Your task to perform on an android device: Open Reddit.com Image 0: 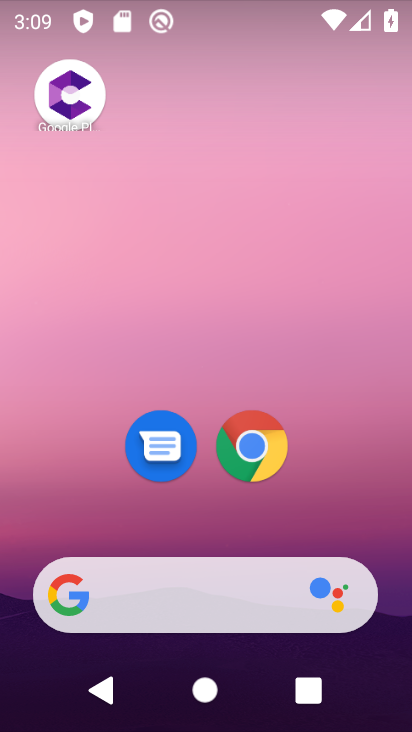
Step 0: click (257, 439)
Your task to perform on an android device: Open Reddit.com Image 1: 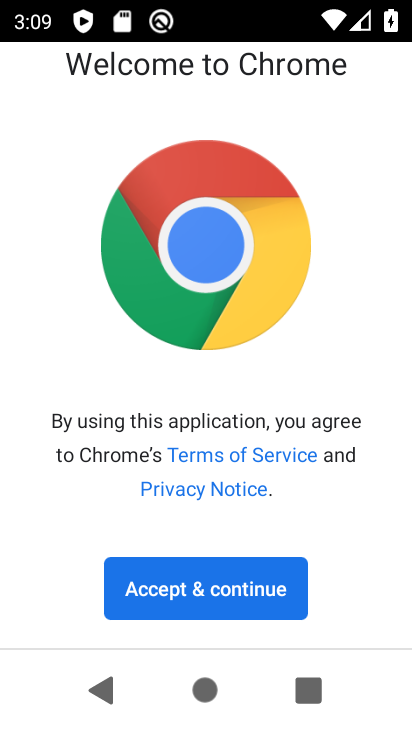
Step 1: click (252, 589)
Your task to perform on an android device: Open Reddit.com Image 2: 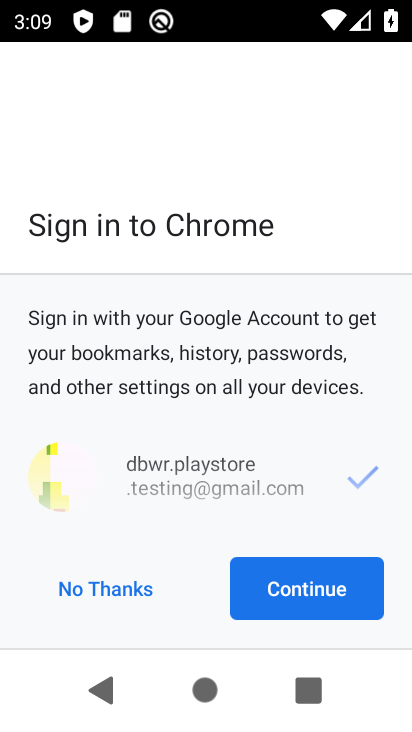
Step 2: click (279, 584)
Your task to perform on an android device: Open Reddit.com Image 3: 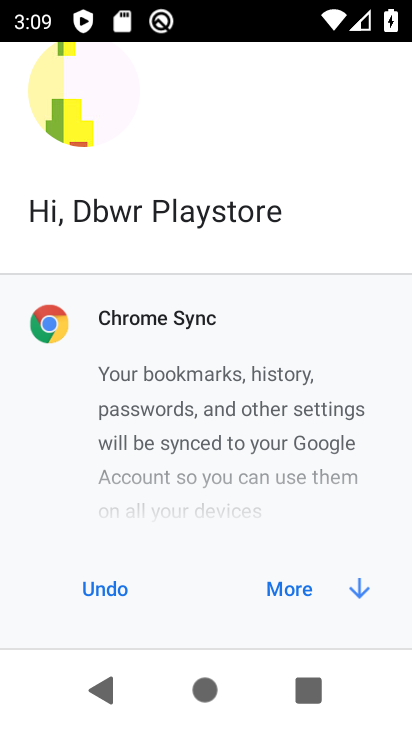
Step 3: click (279, 584)
Your task to perform on an android device: Open Reddit.com Image 4: 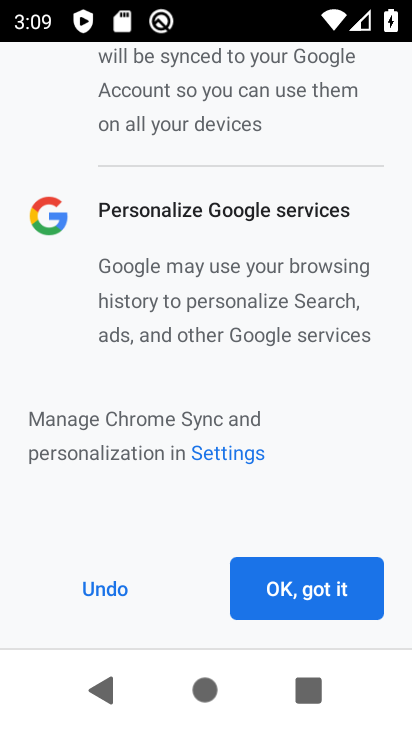
Step 4: click (280, 583)
Your task to perform on an android device: Open Reddit.com Image 5: 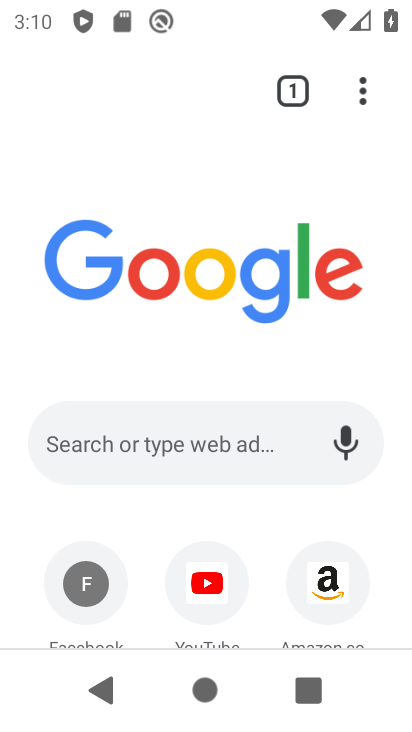
Step 5: click (246, 453)
Your task to perform on an android device: Open Reddit.com Image 6: 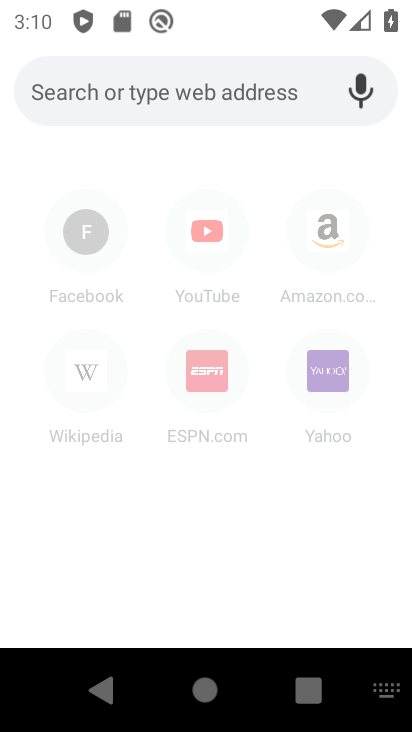
Step 6: type "reddit.com"
Your task to perform on an android device: Open Reddit.com Image 7: 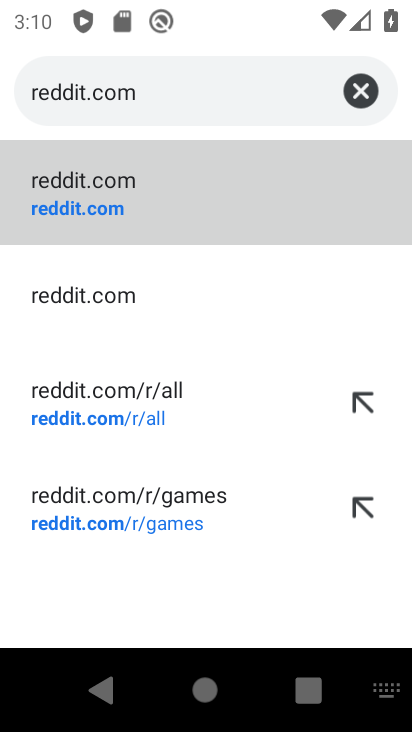
Step 7: click (153, 182)
Your task to perform on an android device: Open Reddit.com Image 8: 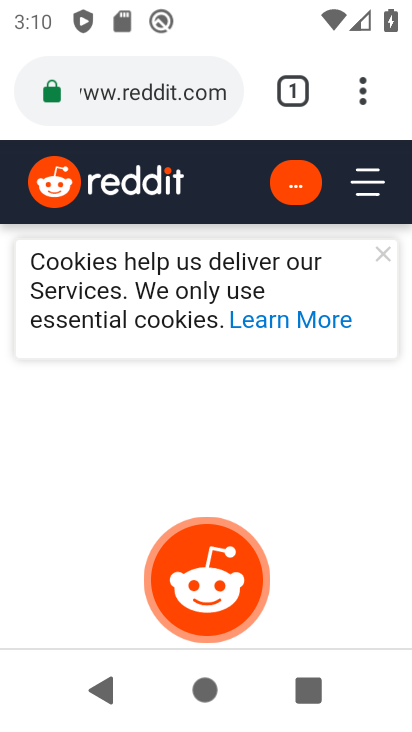
Step 8: task complete